Your task to perform on an android device: set an alarm Image 0: 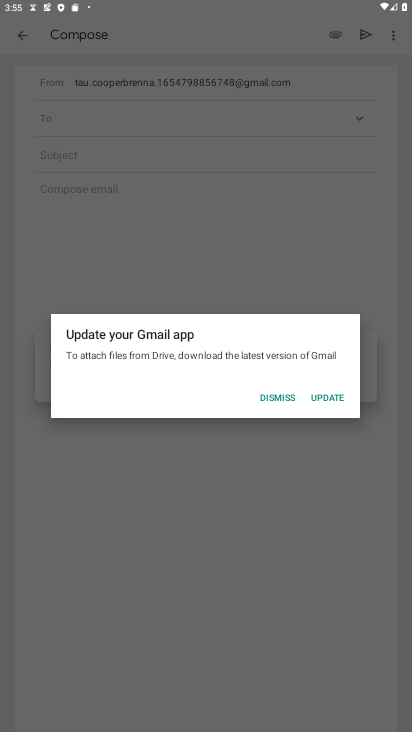
Step 0: press home button
Your task to perform on an android device: set an alarm Image 1: 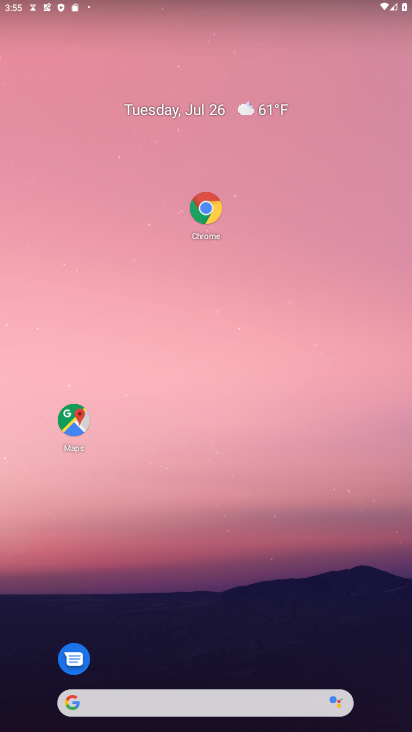
Step 1: drag from (160, 377) to (181, 0)
Your task to perform on an android device: set an alarm Image 2: 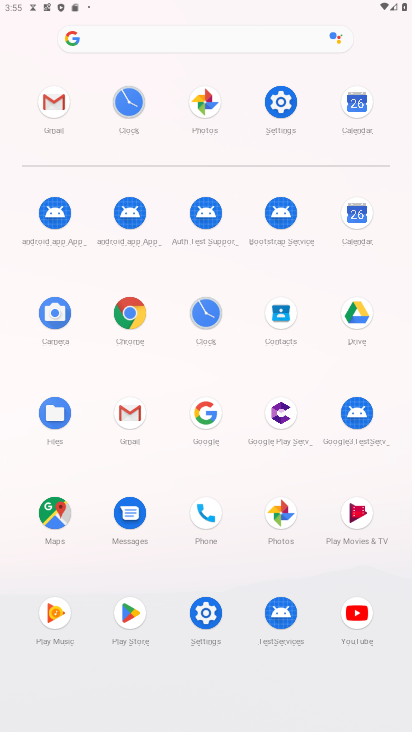
Step 2: click (129, 127)
Your task to perform on an android device: set an alarm Image 3: 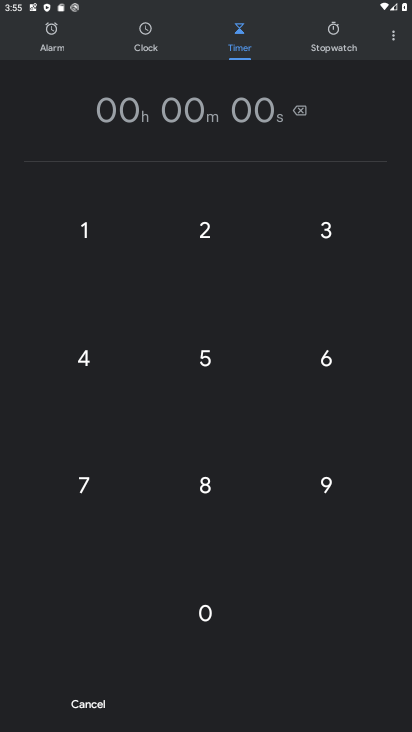
Step 3: click (392, 42)
Your task to perform on an android device: set an alarm Image 4: 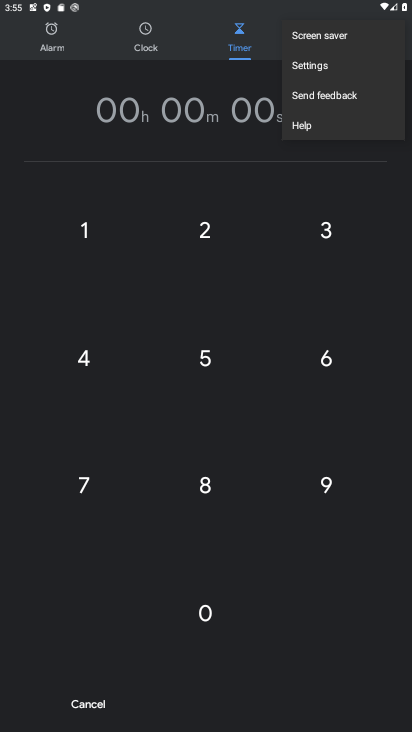
Step 4: click (50, 38)
Your task to perform on an android device: set an alarm Image 5: 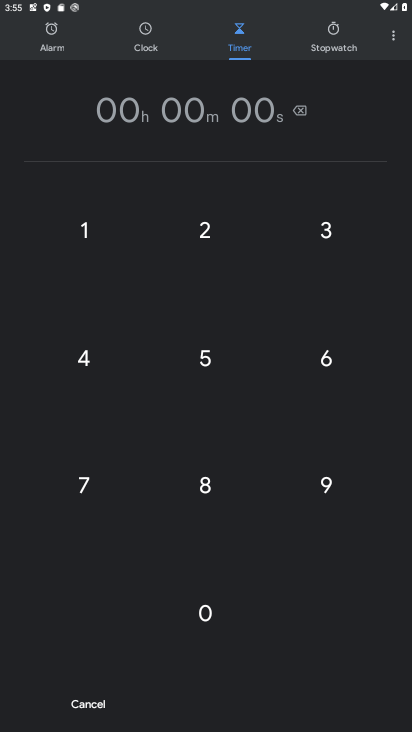
Step 5: click (50, 38)
Your task to perform on an android device: set an alarm Image 6: 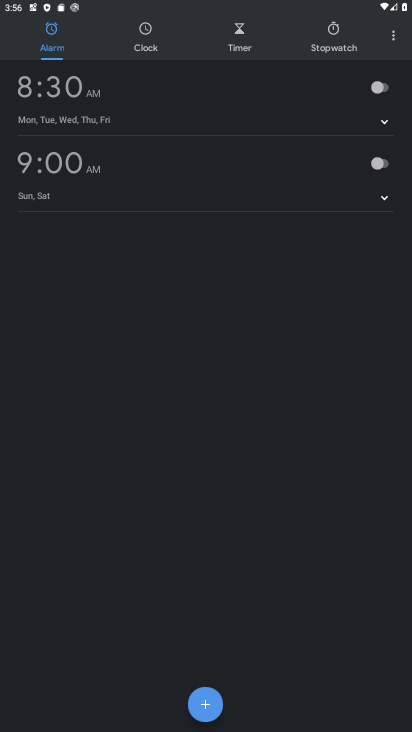
Step 6: click (387, 93)
Your task to perform on an android device: set an alarm Image 7: 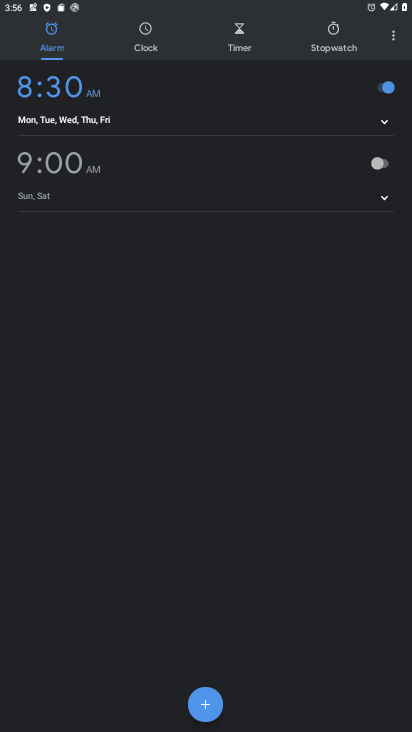
Step 7: task complete